Your task to perform on an android device: Add "usb-c to usb-a" to the cart on target.com Image 0: 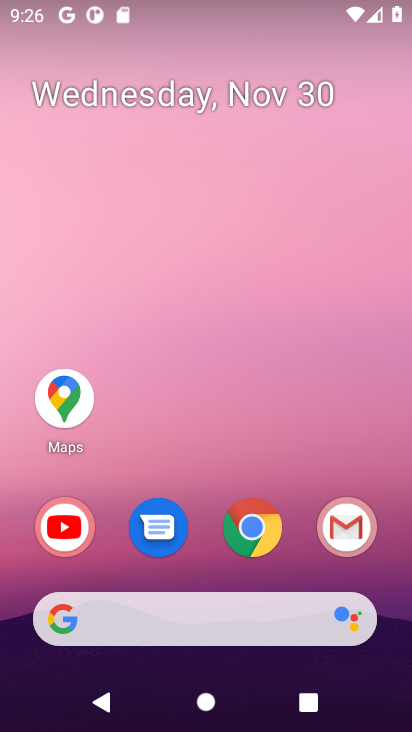
Step 0: click (269, 535)
Your task to perform on an android device: Add "usb-c to usb-a" to the cart on target.com Image 1: 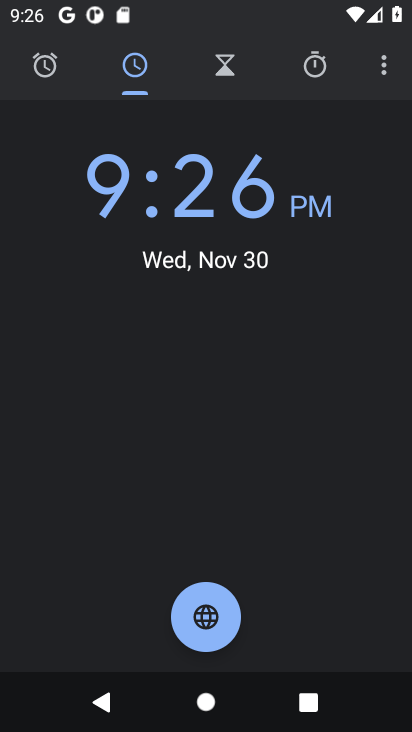
Step 1: press home button
Your task to perform on an android device: Add "usb-c to usb-a" to the cart on target.com Image 2: 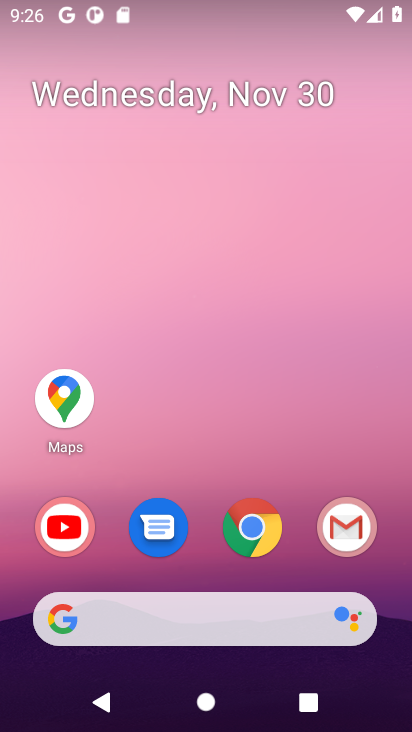
Step 2: click (265, 517)
Your task to perform on an android device: Add "usb-c to usb-a" to the cart on target.com Image 3: 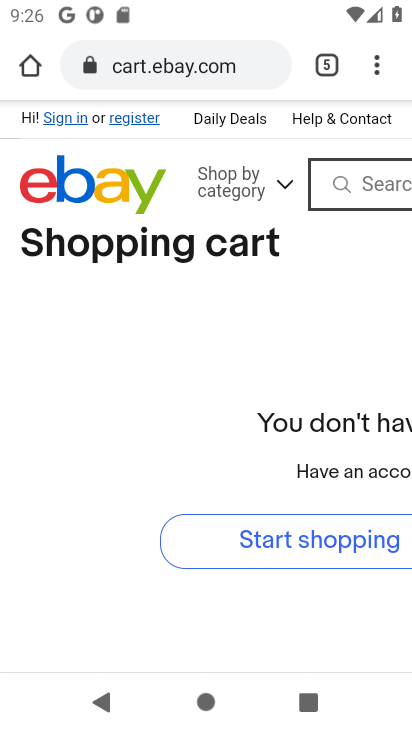
Step 3: click (158, 64)
Your task to perform on an android device: Add "usb-c to usb-a" to the cart on target.com Image 4: 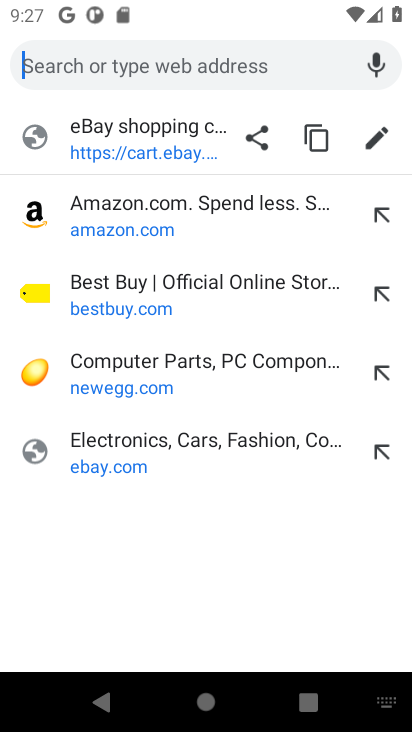
Step 4: type "target.com"
Your task to perform on an android device: Add "usb-c to usb-a" to the cart on target.com Image 5: 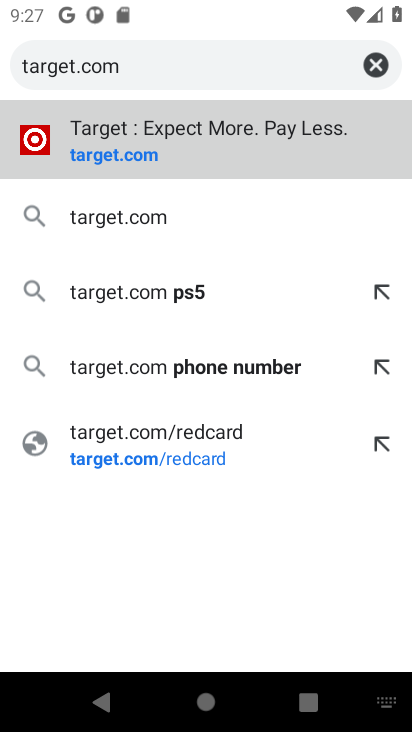
Step 5: press enter
Your task to perform on an android device: Add "usb-c to usb-a" to the cart on target.com Image 6: 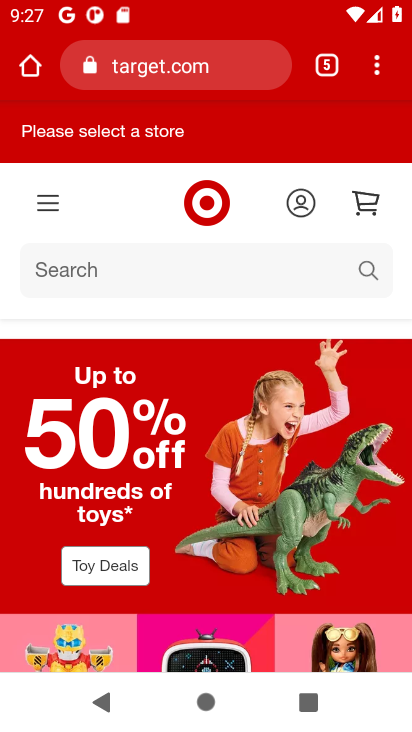
Step 6: click (360, 265)
Your task to perform on an android device: Add "usb-c to usb-a" to the cart on target.com Image 7: 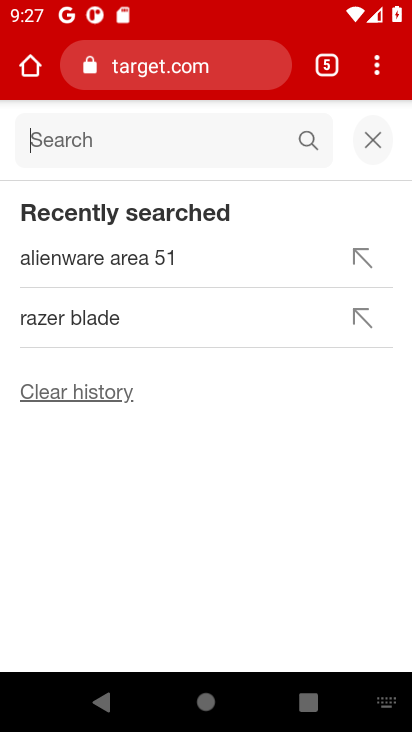
Step 7: type "usb-c to usb-a"
Your task to perform on an android device: Add "usb-c to usb-a" to the cart on target.com Image 8: 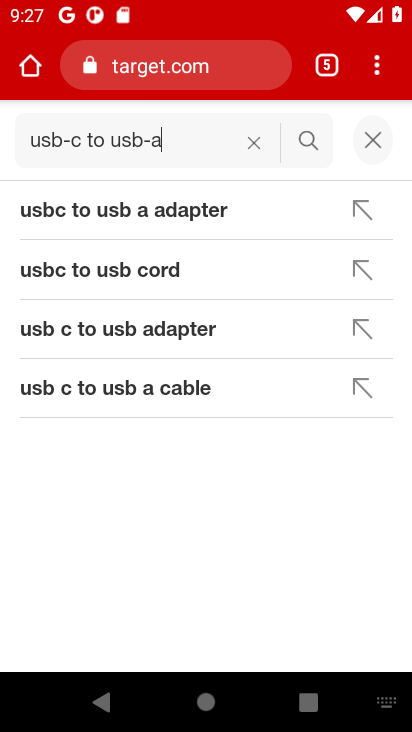
Step 8: click (304, 138)
Your task to perform on an android device: Add "usb-c to usb-a" to the cart on target.com Image 9: 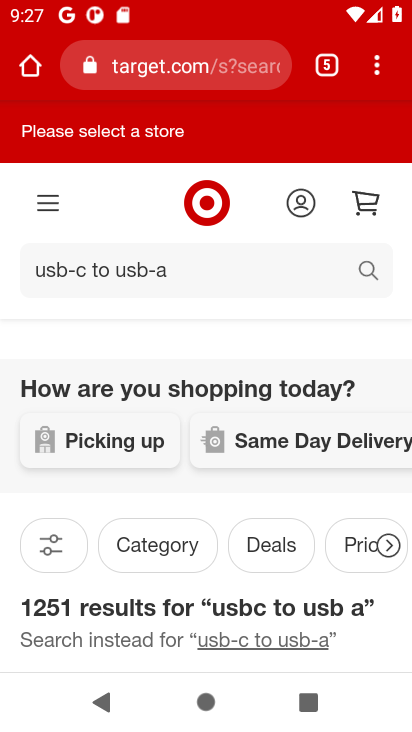
Step 9: drag from (373, 624) to (406, 248)
Your task to perform on an android device: Add "usb-c to usb-a" to the cart on target.com Image 10: 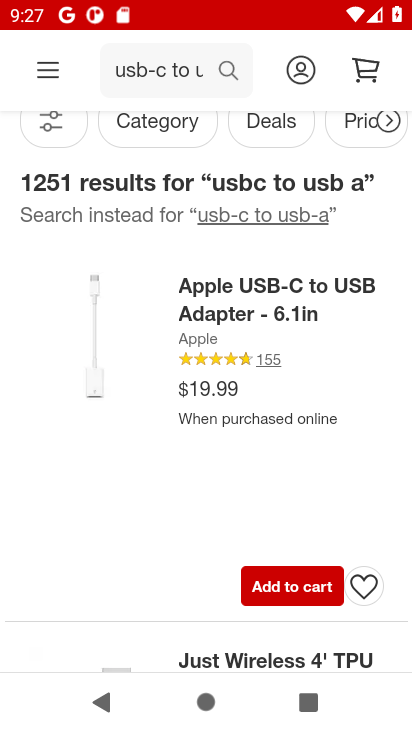
Step 10: drag from (347, 471) to (410, 463)
Your task to perform on an android device: Add "usb-c to usb-a" to the cart on target.com Image 11: 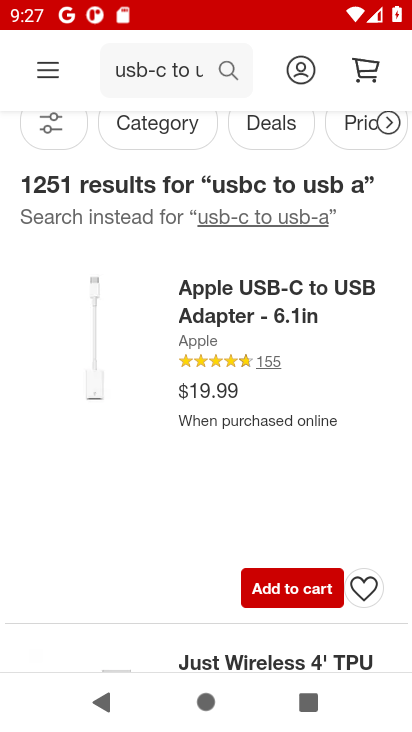
Step 11: drag from (355, 498) to (387, 235)
Your task to perform on an android device: Add "usb-c to usb-a" to the cart on target.com Image 12: 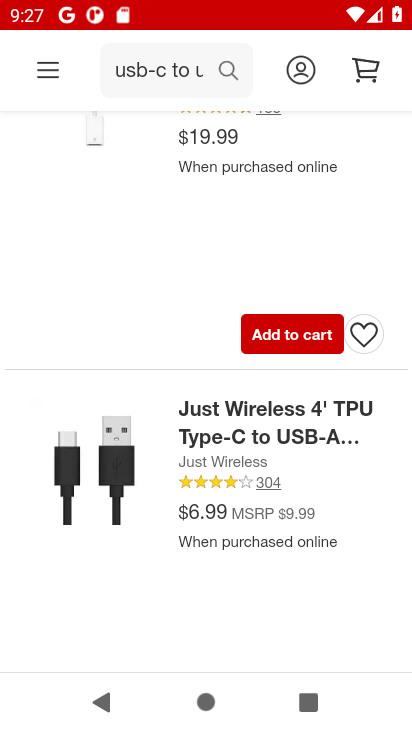
Step 12: click (93, 453)
Your task to perform on an android device: Add "usb-c to usb-a" to the cart on target.com Image 13: 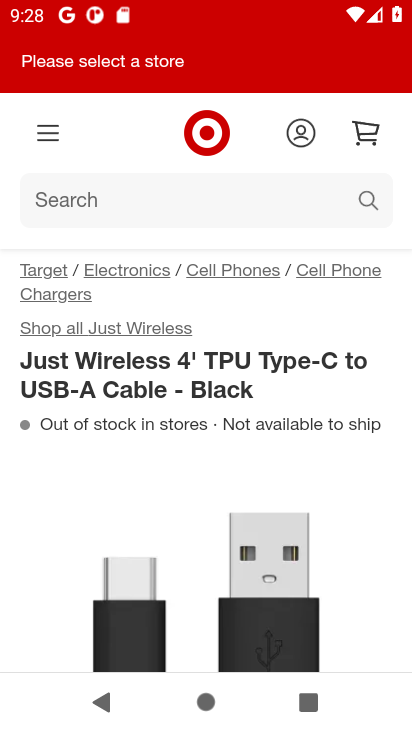
Step 13: drag from (364, 560) to (393, 20)
Your task to perform on an android device: Add "usb-c to usb-a" to the cart on target.com Image 14: 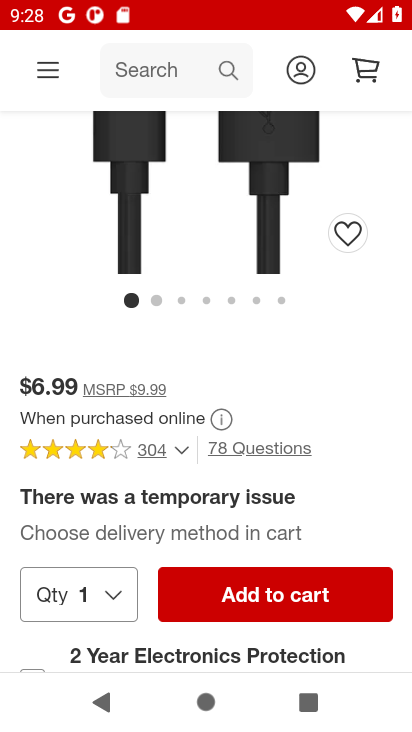
Step 14: click (275, 591)
Your task to perform on an android device: Add "usb-c to usb-a" to the cart on target.com Image 15: 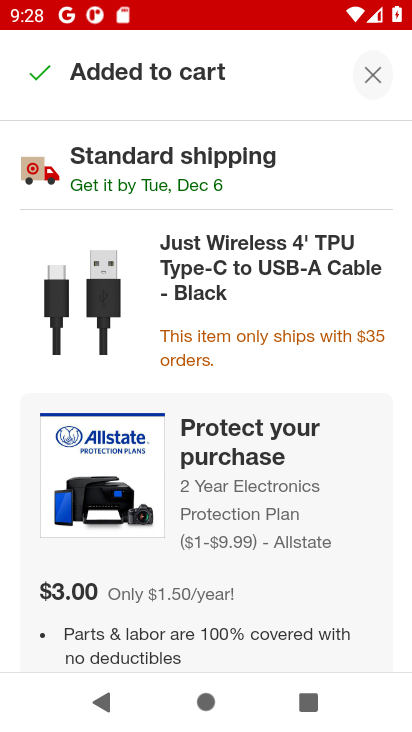
Step 15: task complete